Your task to perform on an android device: Search for sushi restaurants on Maps Image 0: 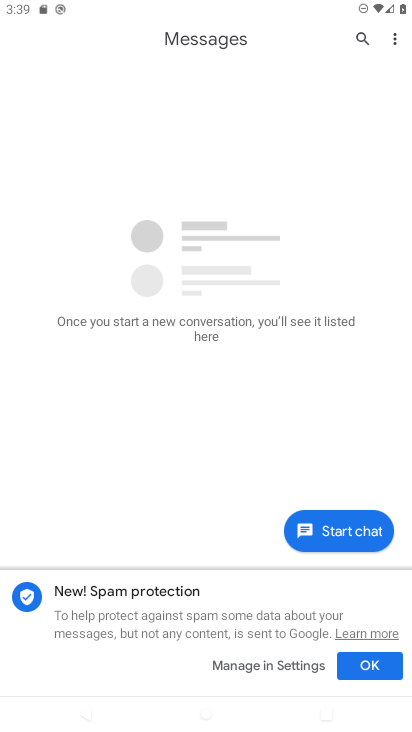
Step 0: press home button
Your task to perform on an android device: Search for sushi restaurants on Maps Image 1: 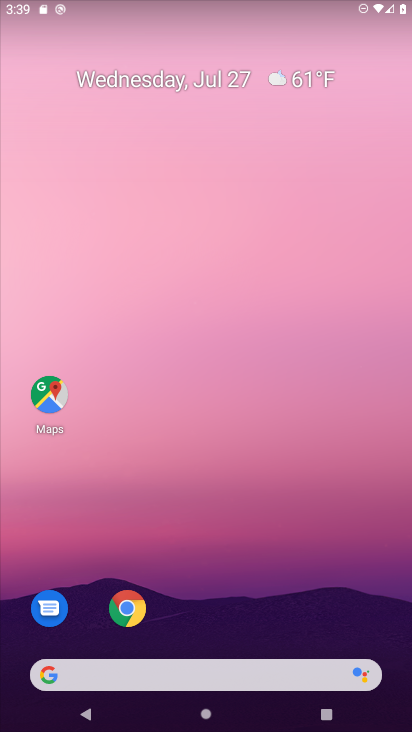
Step 1: drag from (186, 610) to (186, 92)
Your task to perform on an android device: Search for sushi restaurants on Maps Image 2: 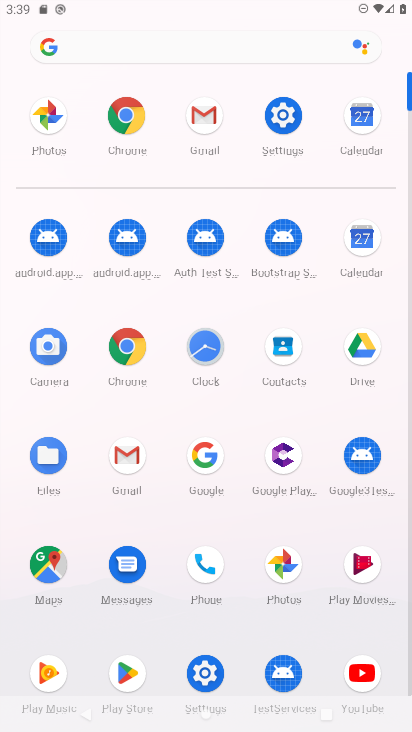
Step 2: click (52, 551)
Your task to perform on an android device: Search for sushi restaurants on Maps Image 3: 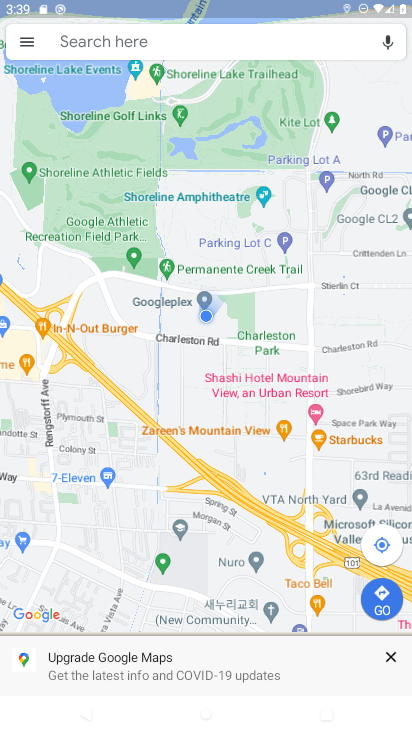
Step 3: click (225, 46)
Your task to perform on an android device: Search for sushi restaurants on Maps Image 4: 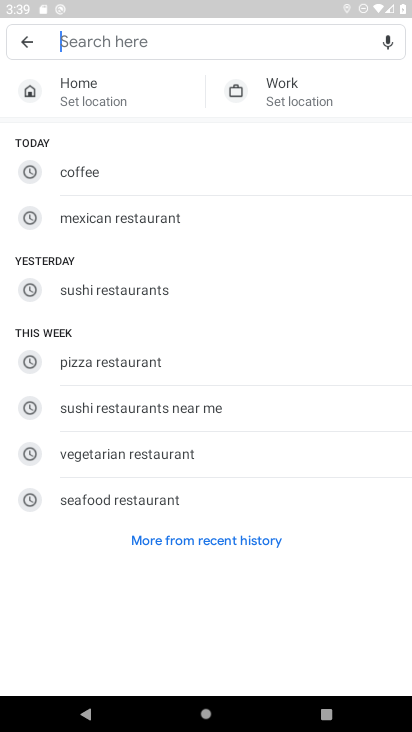
Step 4: type "sushi restaurants"
Your task to perform on an android device: Search for sushi restaurants on Maps Image 5: 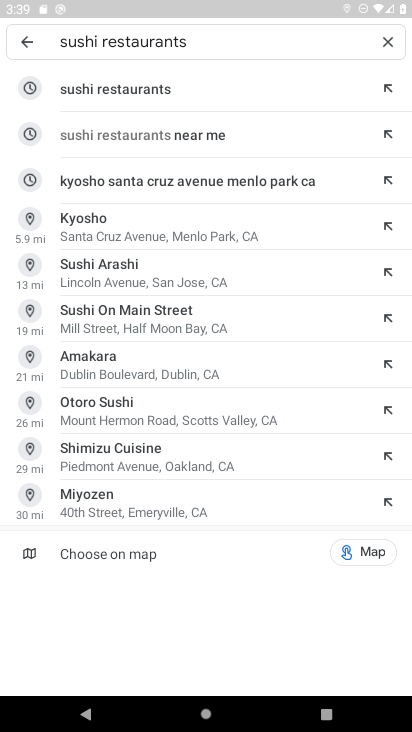
Step 5: click (158, 80)
Your task to perform on an android device: Search for sushi restaurants on Maps Image 6: 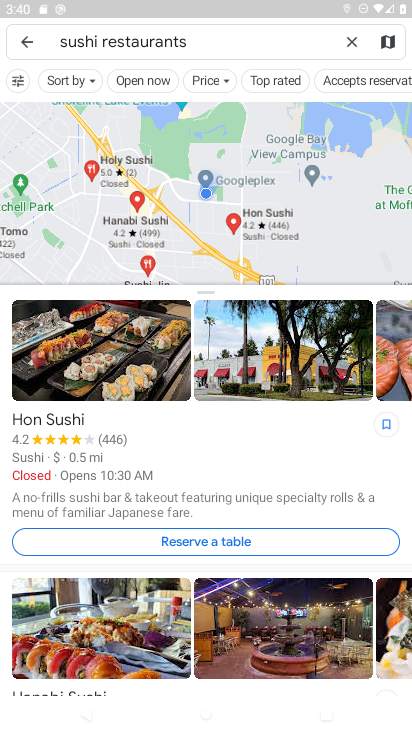
Step 6: task complete